Your task to perform on an android device: Open Google Chrome and open the bookmarks view Image 0: 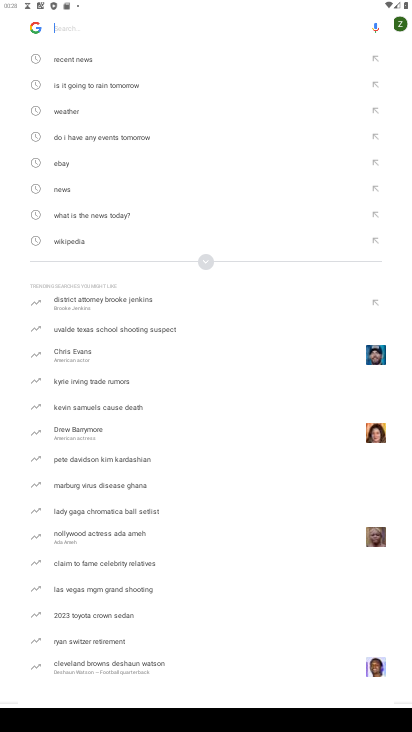
Step 0: press home button
Your task to perform on an android device: Open Google Chrome and open the bookmarks view Image 1: 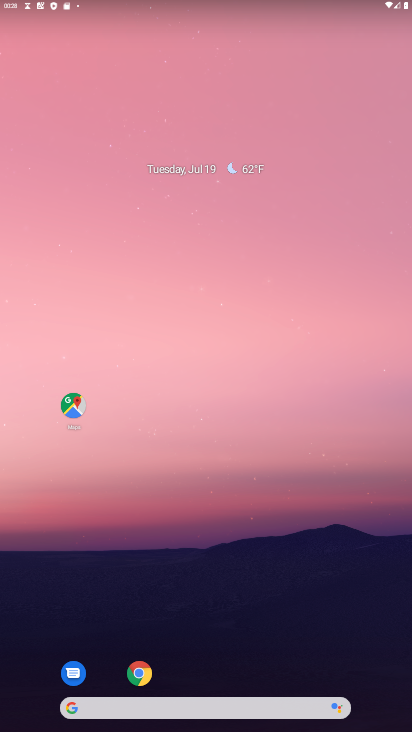
Step 1: drag from (257, 615) to (262, 172)
Your task to perform on an android device: Open Google Chrome and open the bookmarks view Image 2: 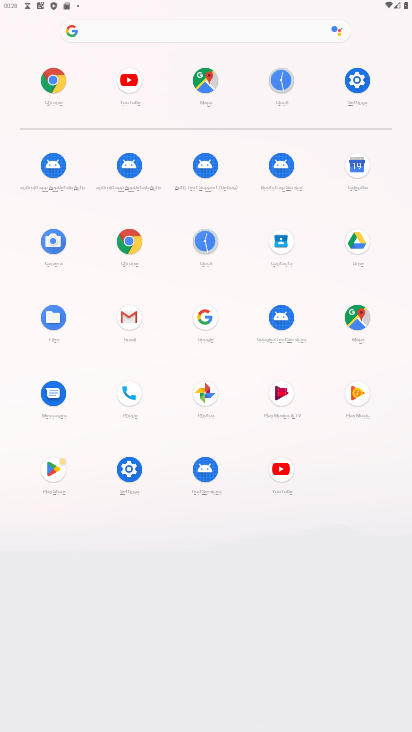
Step 2: click (55, 81)
Your task to perform on an android device: Open Google Chrome and open the bookmarks view Image 3: 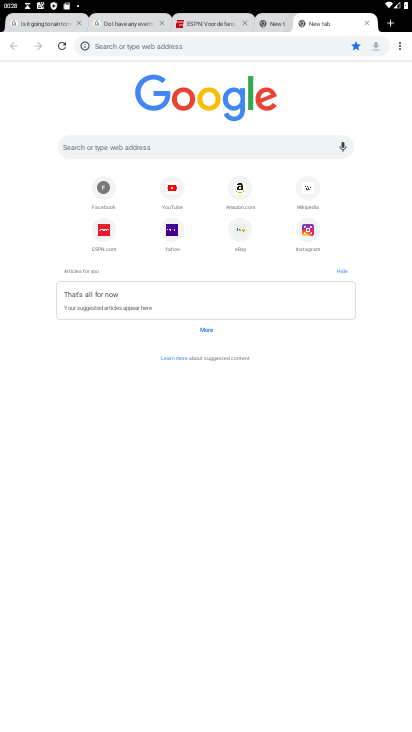
Step 3: click (409, 40)
Your task to perform on an android device: Open Google Chrome and open the bookmarks view Image 4: 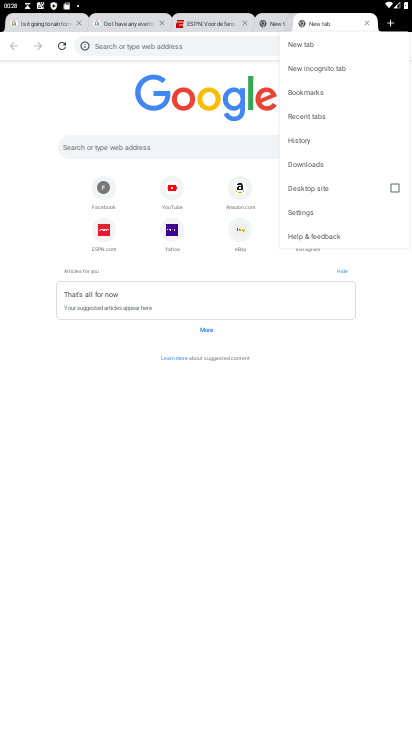
Step 4: click (324, 87)
Your task to perform on an android device: Open Google Chrome and open the bookmarks view Image 5: 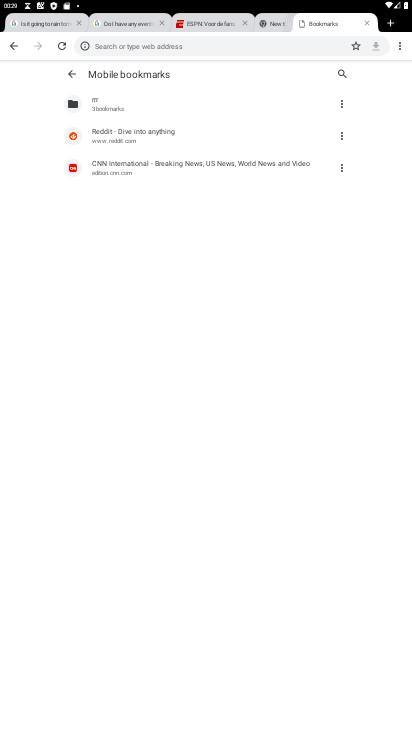
Step 5: task complete